Your task to perform on an android device: See recent photos Image 0: 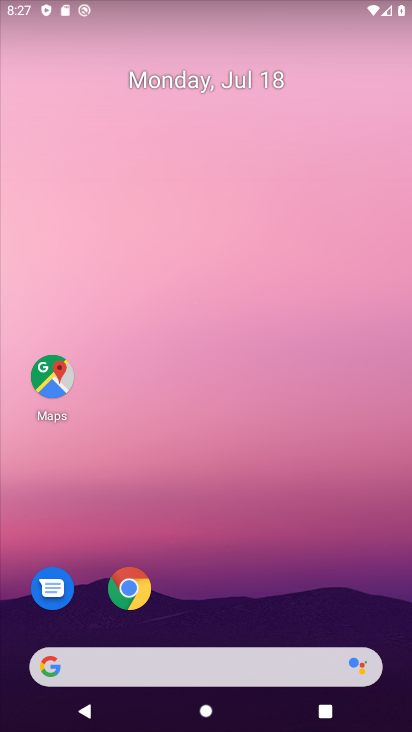
Step 0: drag from (209, 616) to (214, 102)
Your task to perform on an android device: See recent photos Image 1: 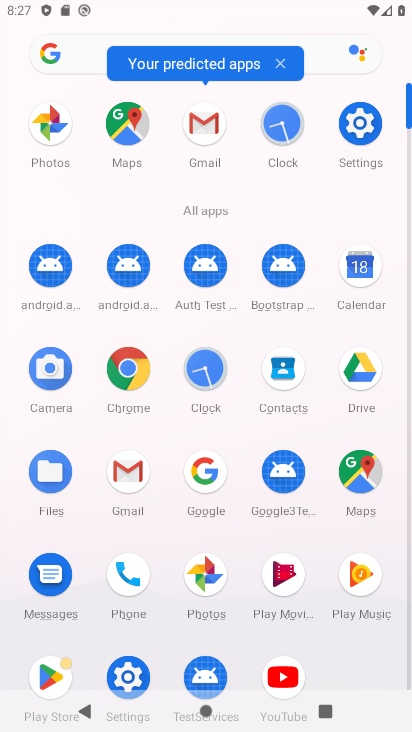
Step 1: click (198, 575)
Your task to perform on an android device: See recent photos Image 2: 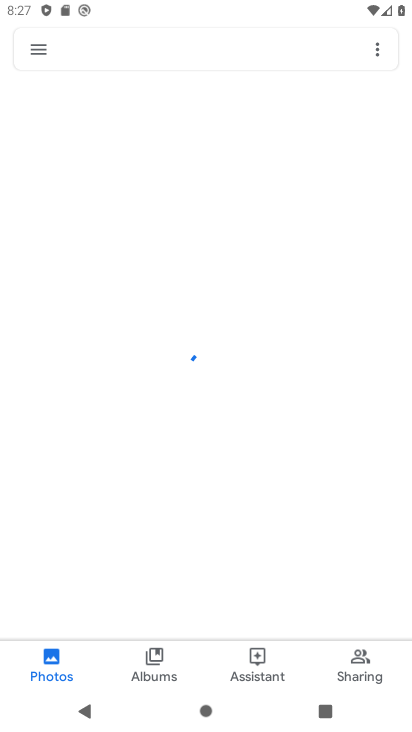
Step 2: click (51, 662)
Your task to perform on an android device: See recent photos Image 3: 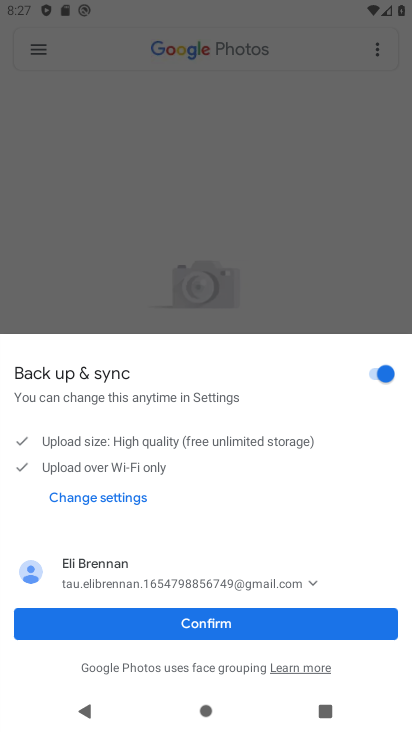
Step 3: click (195, 623)
Your task to perform on an android device: See recent photos Image 4: 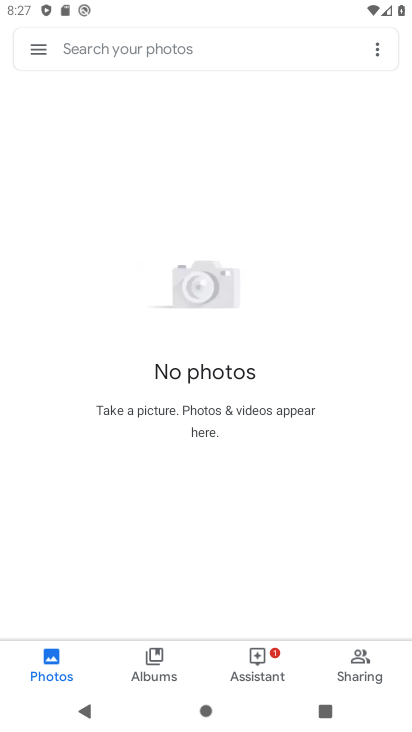
Step 4: task complete